Your task to perform on an android device: Open eBay Image 0: 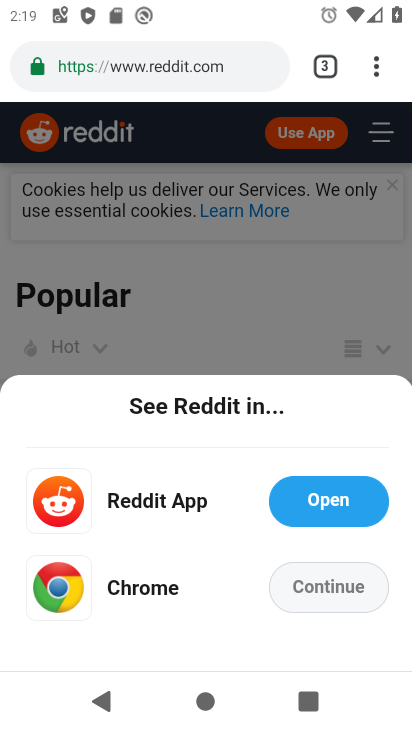
Step 0: press home button
Your task to perform on an android device: Open eBay Image 1: 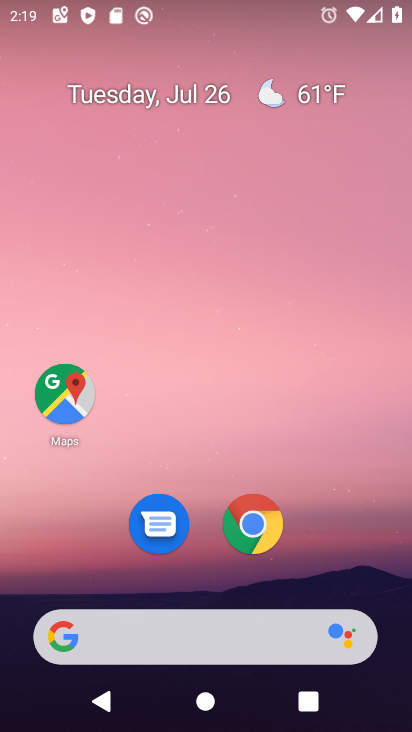
Step 1: click (253, 542)
Your task to perform on an android device: Open eBay Image 2: 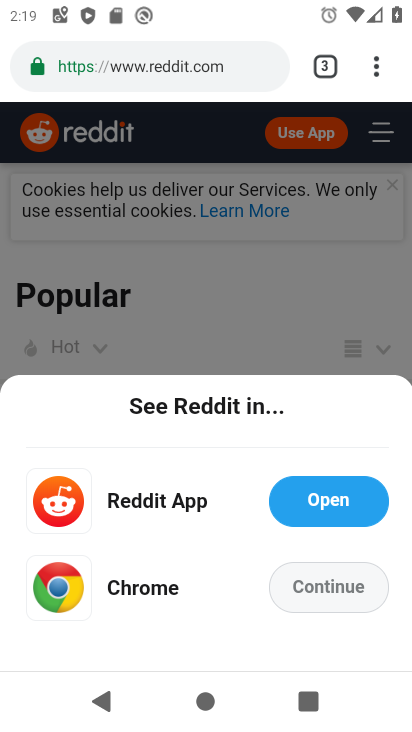
Step 2: drag from (373, 71) to (301, 126)
Your task to perform on an android device: Open eBay Image 3: 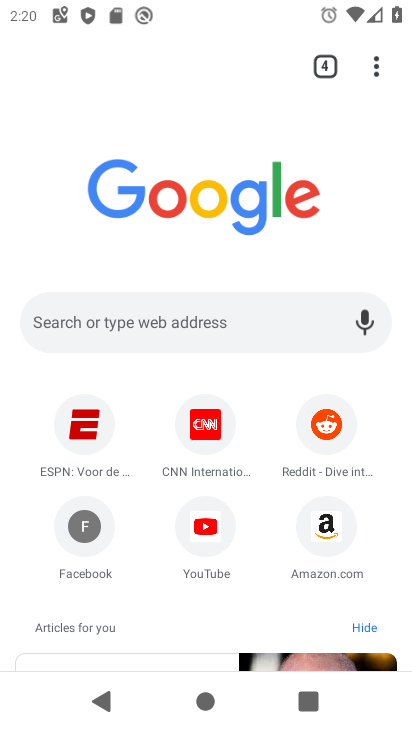
Step 3: click (116, 323)
Your task to perform on an android device: Open eBay Image 4: 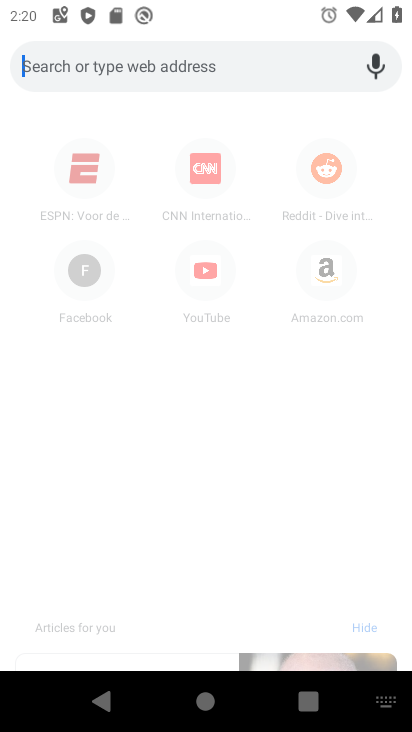
Step 4: type "ebay"
Your task to perform on an android device: Open eBay Image 5: 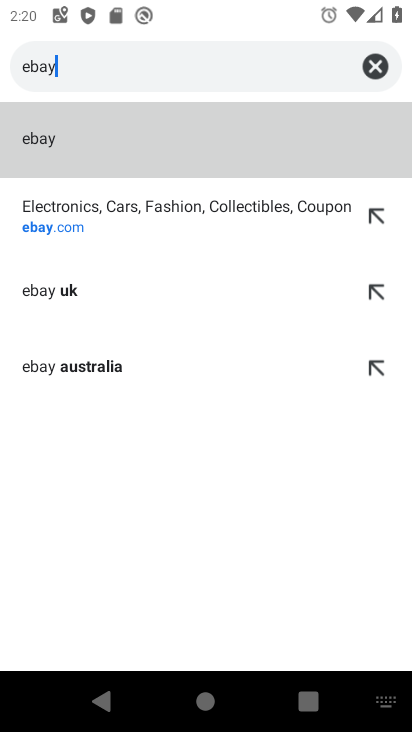
Step 5: click (94, 207)
Your task to perform on an android device: Open eBay Image 6: 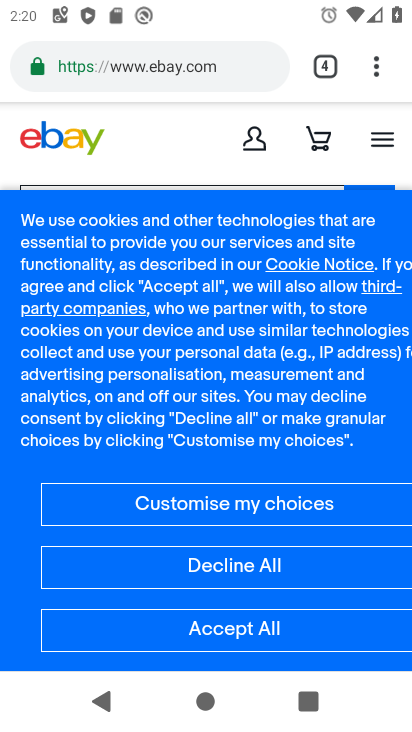
Step 6: drag from (201, 597) to (276, 285)
Your task to perform on an android device: Open eBay Image 7: 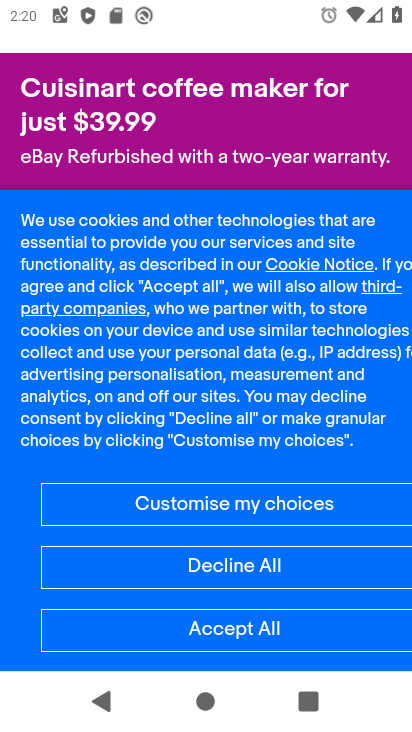
Step 7: click (229, 640)
Your task to perform on an android device: Open eBay Image 8: 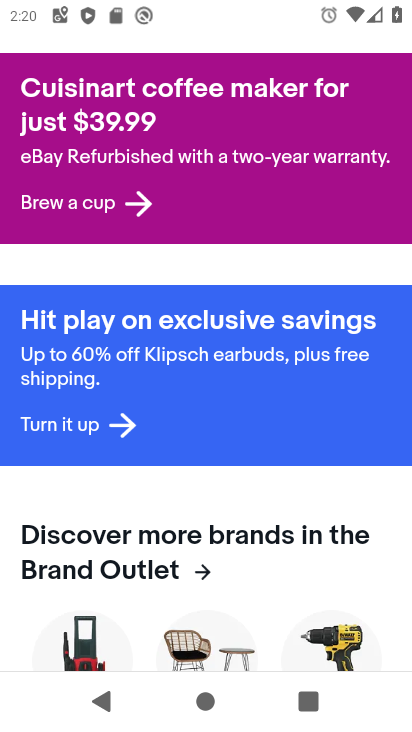
Step 8: task complete